Your task to perform on an android device: toggle wifi Image 0: 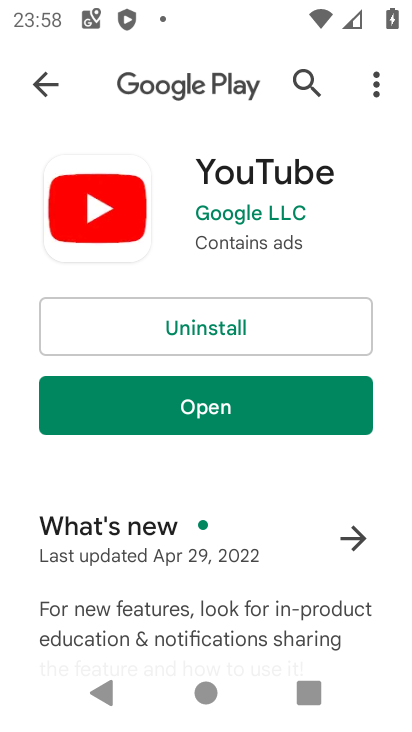
Step 0: press home button
Your task to perform on an android device: toggle wifi Image 1: 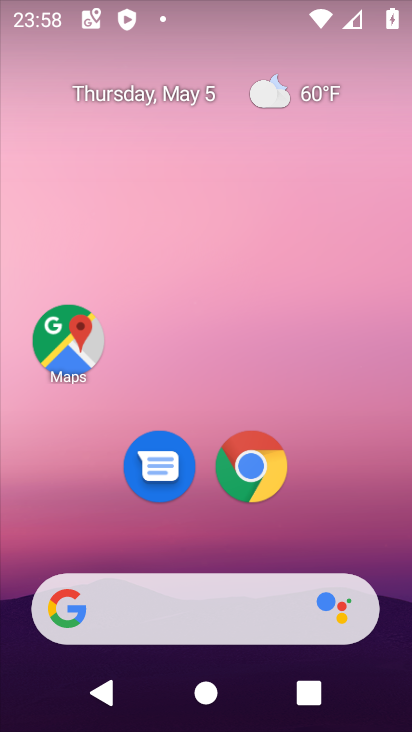
Step 1: drag from (269, 548) to (360, 218)
Your task to perform on an android device: toggle wifi Image 2: 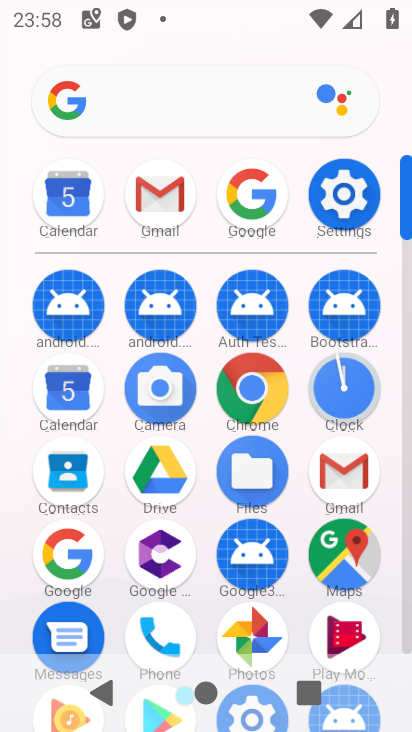
Step 2: click (346, 195)
Your task to perform on an android device: toggle wifi Image 3: 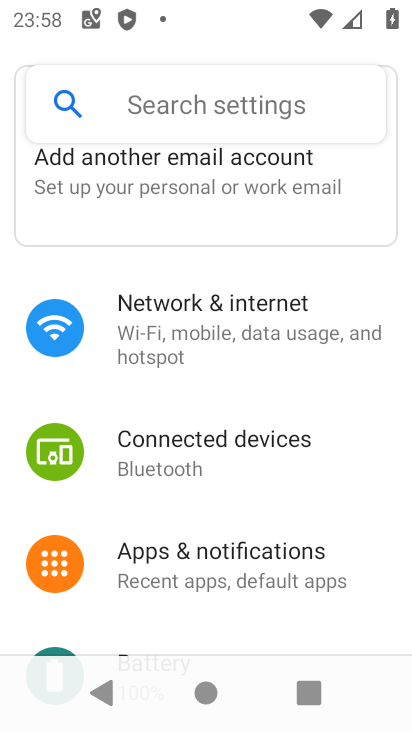
Step 3: click (218, 349)
Your task to perform on an android device: toggle wifi Image 4: 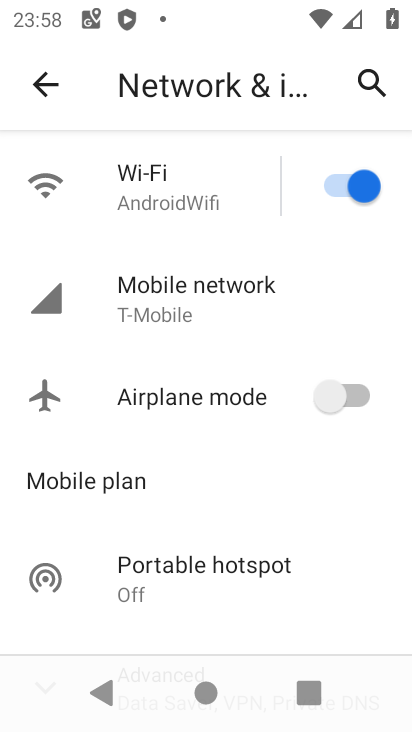
Step 4: click (340, 182)
Your task to perform on an android device: toggle wifi Image 5: 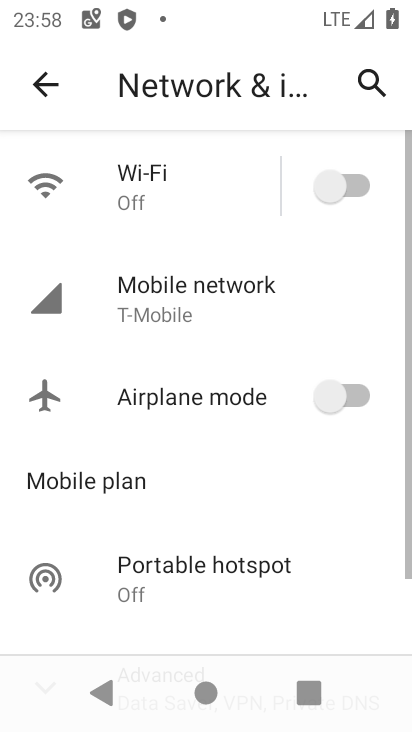
Step 5: task complete